Your task to perform on an android device: see tabs open on other devices in the chrome app Image 0: 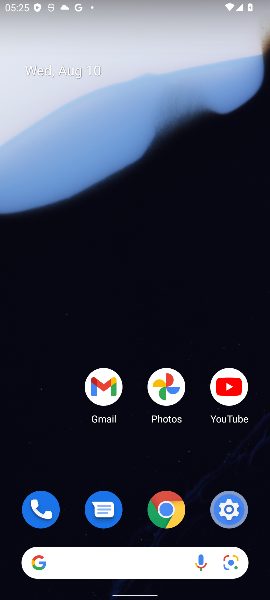
Step 0: click (165, 505)
Your task to perform on an android device: see tabs open on other devices in the chrome app Image 1: 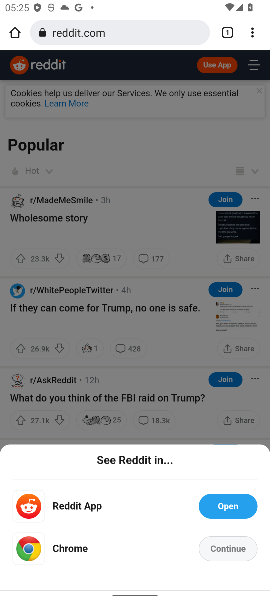
Step 1: task complete